Your task to perform on an android device: Go to accessibility settings Image 0: 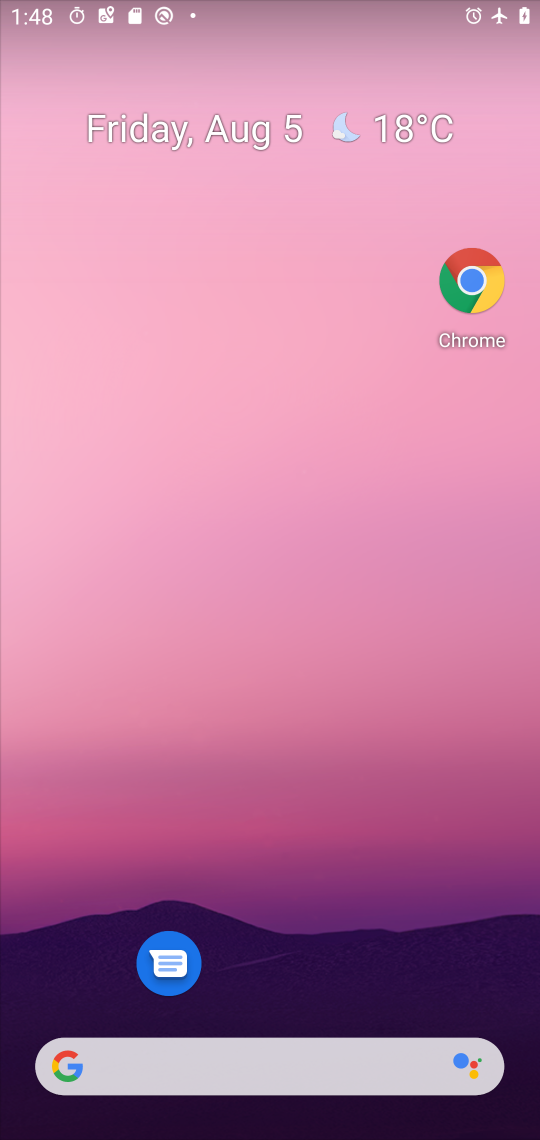
Step 0: drag from (308, 897) to (396, 21)
Your task to perform on an android device: Go to accessibility settings Image 1: 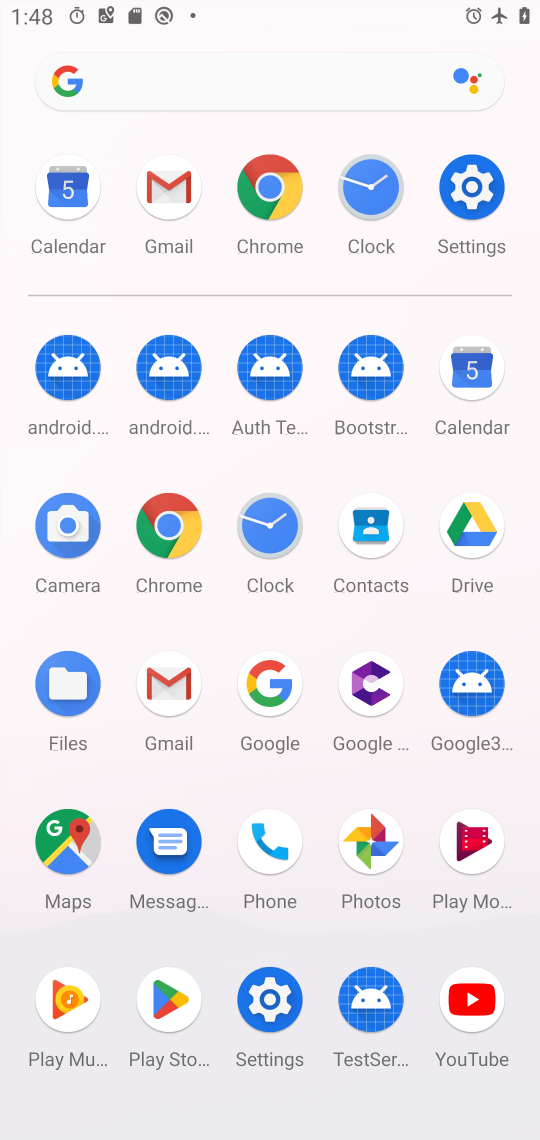
Step 1: click (484, 187)
Your task to perform on an android device: Go to accessibility settings Image 2: 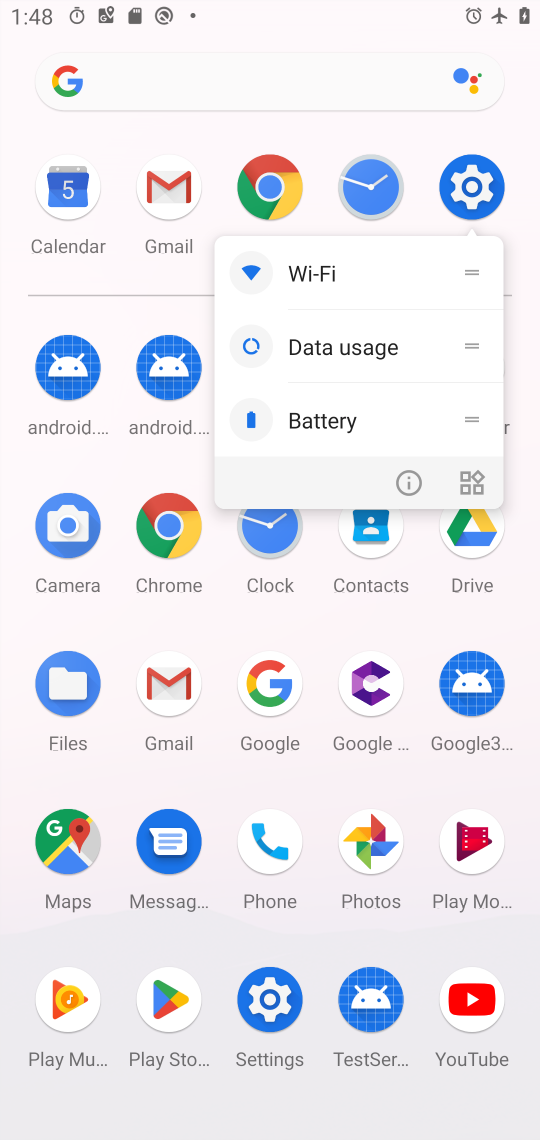
Step 2: click (485, 188)
Your task to perform on an android device: Go to accessibility settings Image 3: 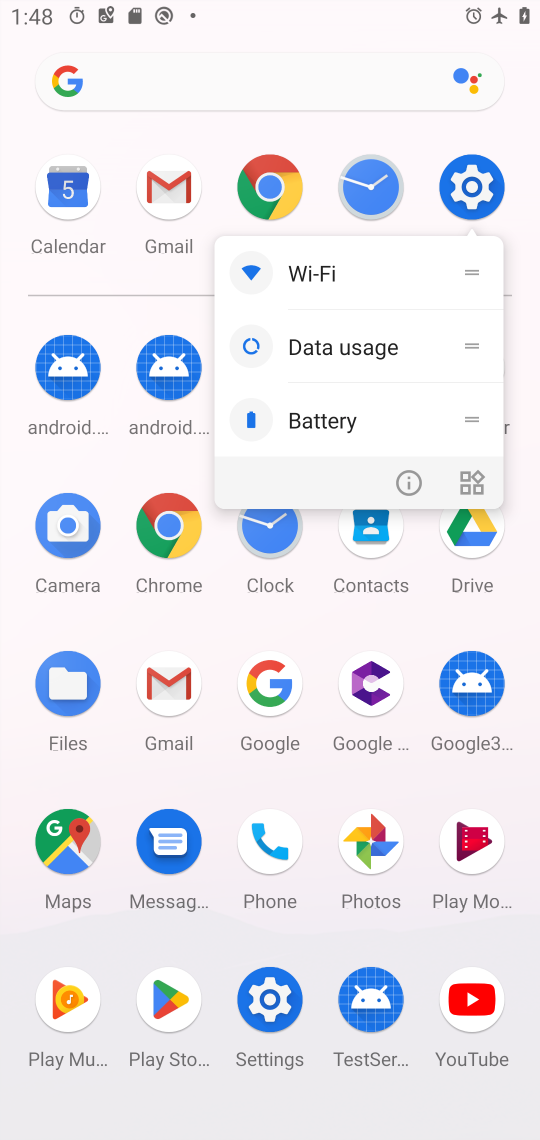
Step 3: click (486, 191)
Your task to perform on an android device: Go to accessibility settings Image 4: 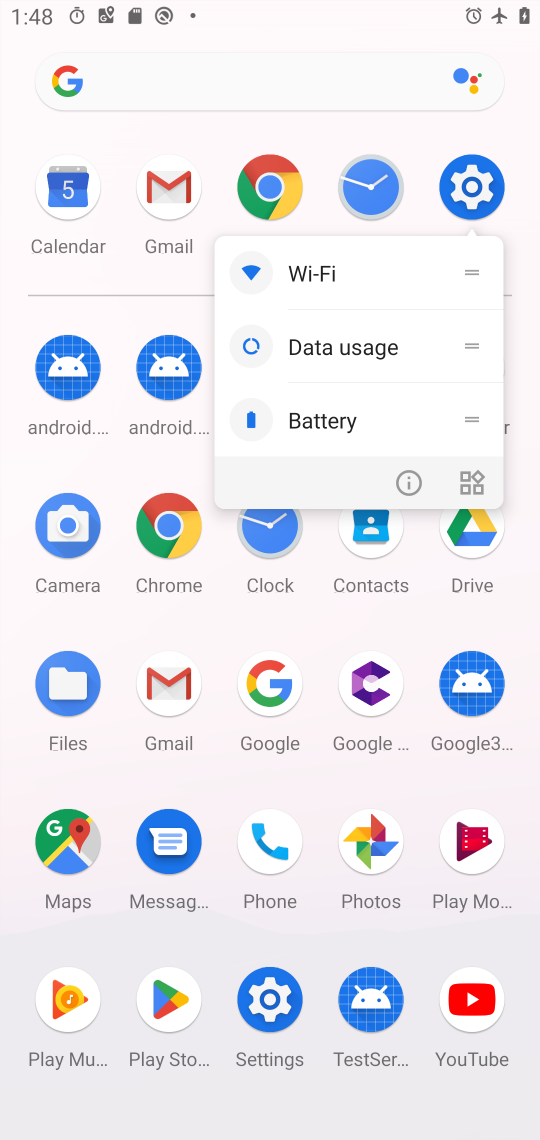
Step 4: click (488, 195)
Your task to perform on an android device: Go to accessibility settings Image 5: 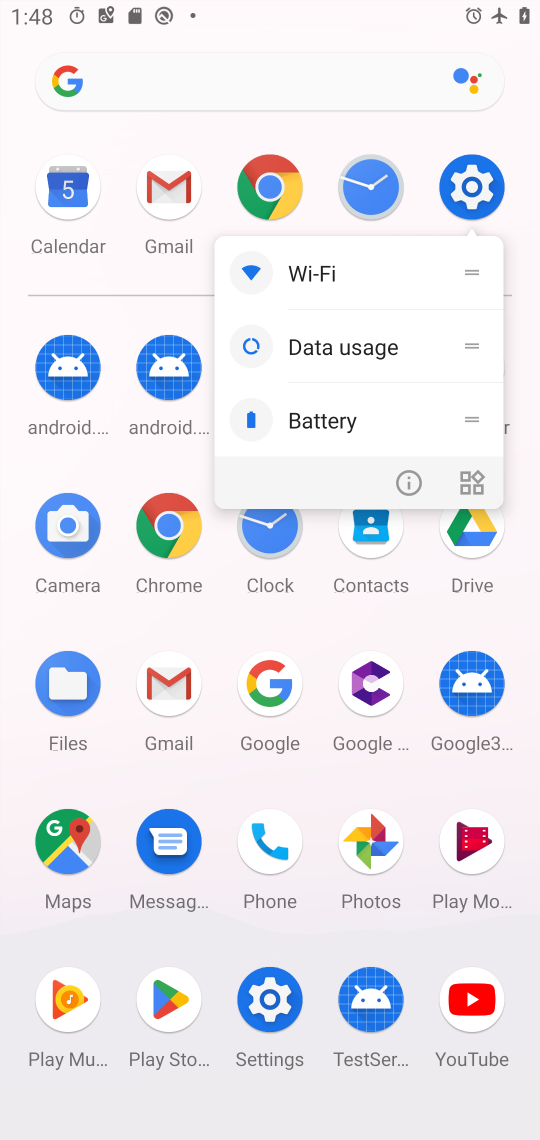
Step 5: click (489, 195)
Your task to perform on an android device: Go to accessibility settings Image 6: 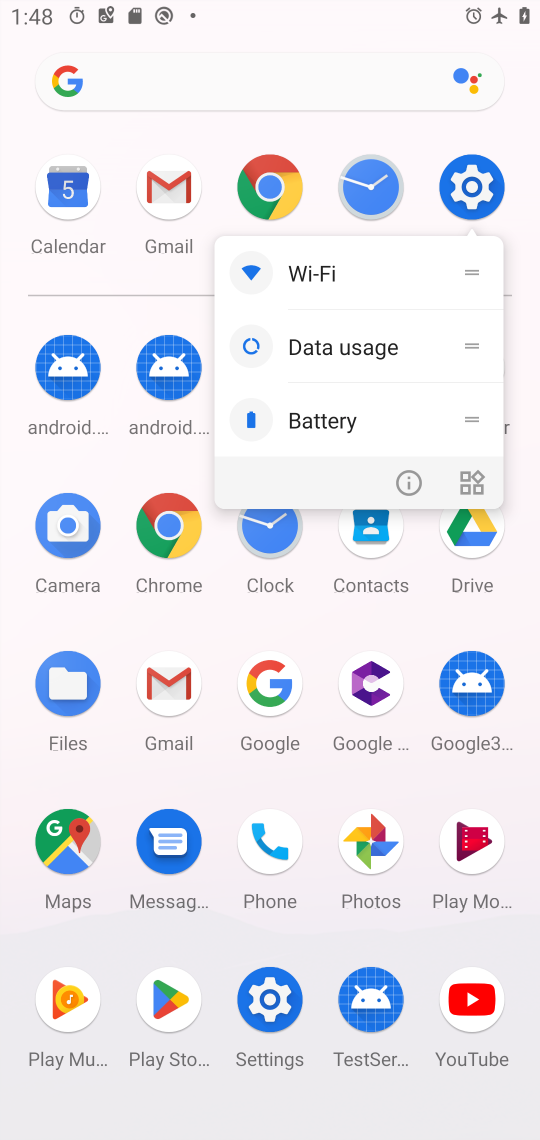
Step 6: click (488, 192)
Your task to perform on an android device: Go to accessibility settings Image 7: 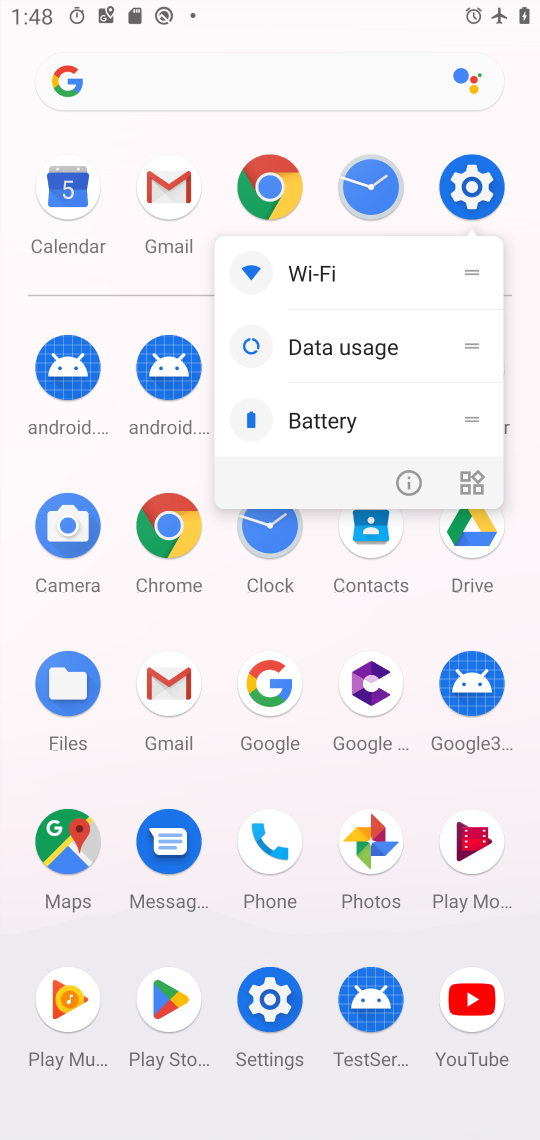
Step 7: click (486, 195)
Your task to perform on an android device: Go to accessibility settings Image 8: 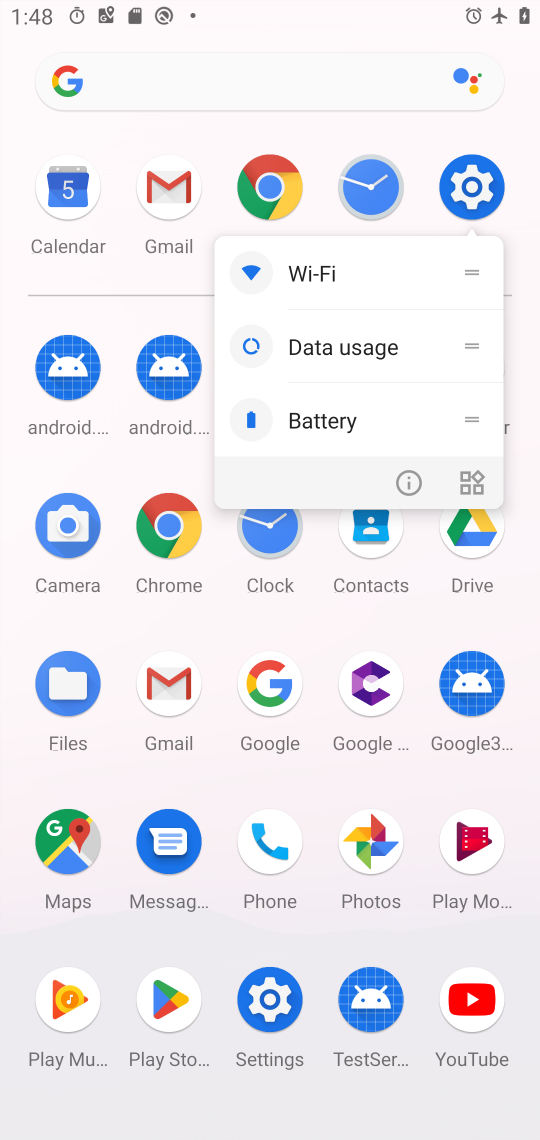
Step 8: click (475, 194)
Your task to perform on an android device: Go to accessibility settings Image 9: 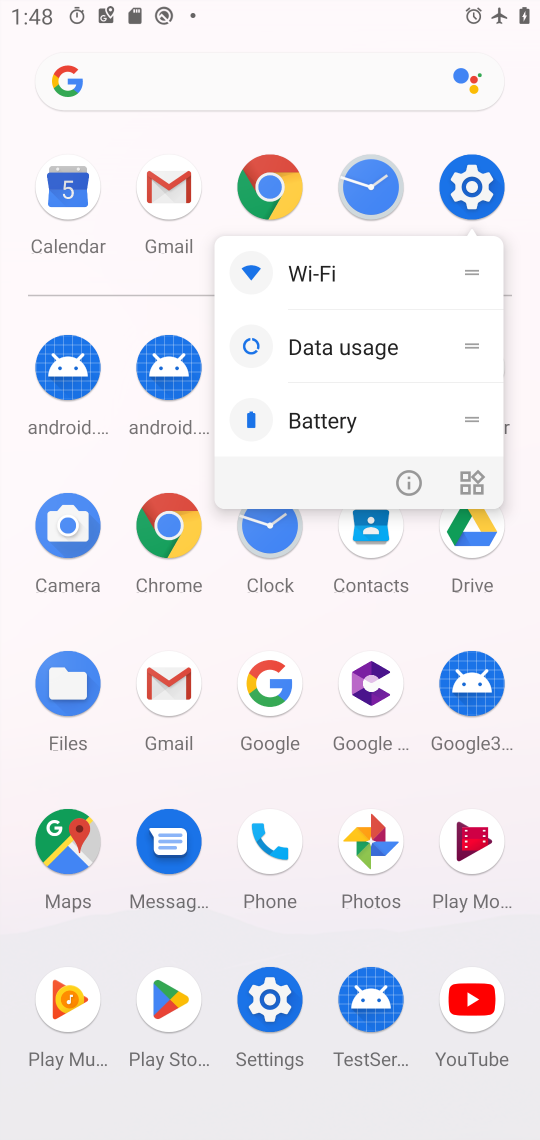
Step 9: click (477, 192)
Your task to perform on an android device: Go to accessibility settings Image 10: 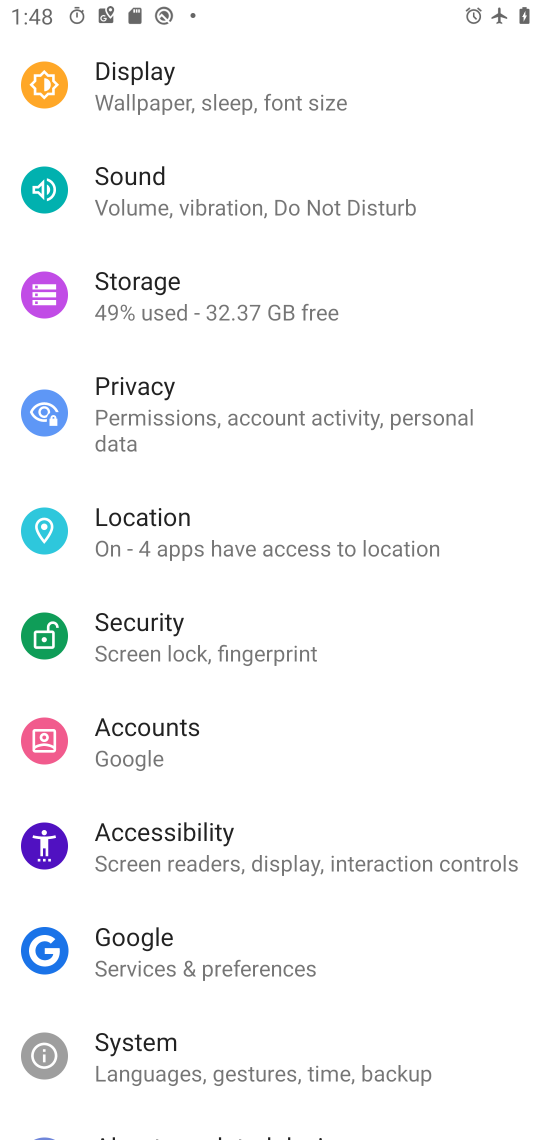
Step 10: click (124, 826)
Your task to perform on an android device: Go to accessibility settings Image 11: 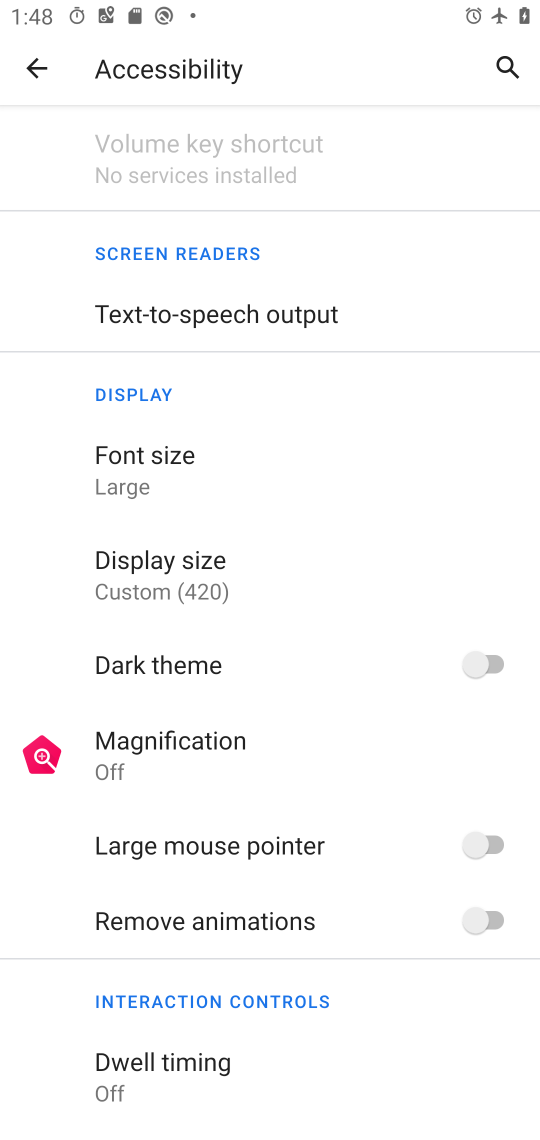
Step 11: task complete